Your task to perform on an android device: Open calendar and show me the second week of next month Image 0: 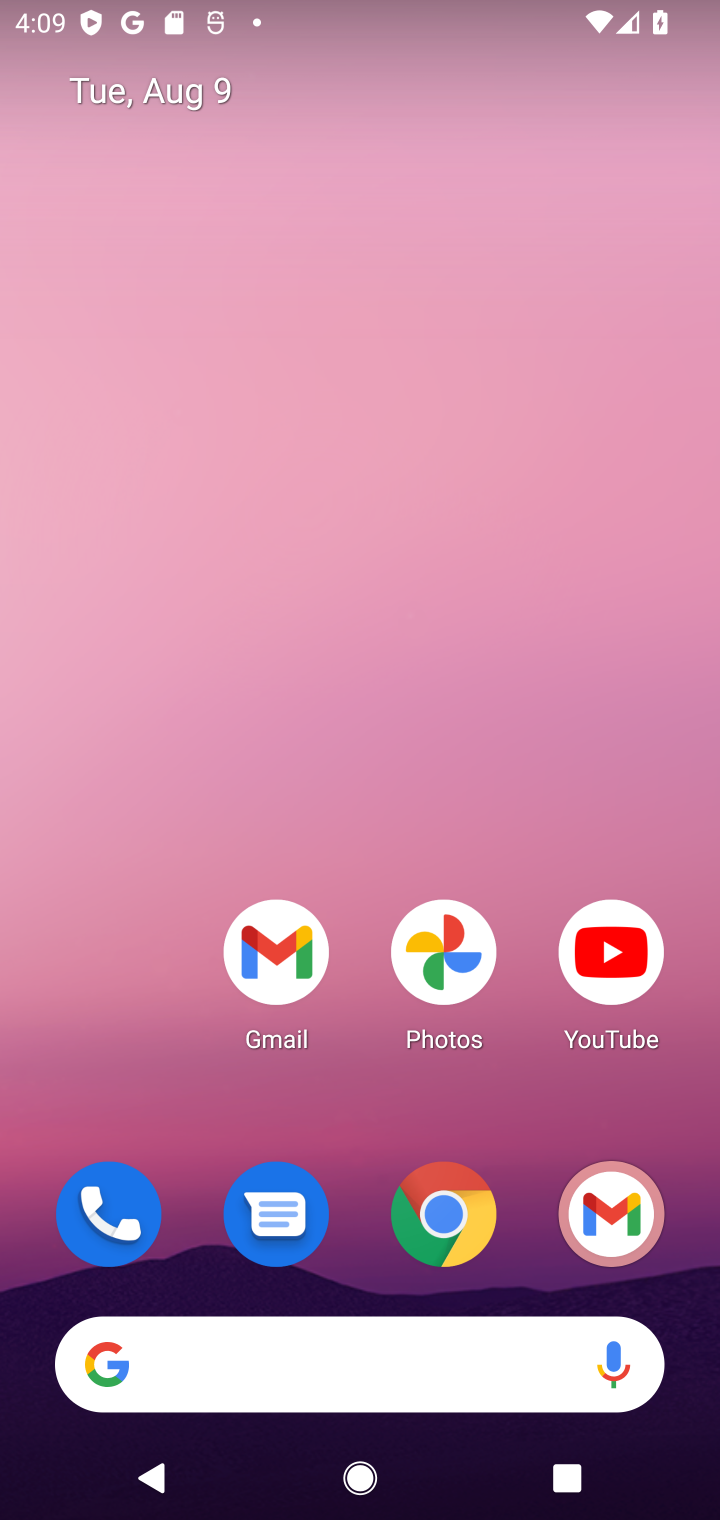
Step 0: press home button
Your task to perform on an android device: Open calendar and show me the second week of next month Image 1: 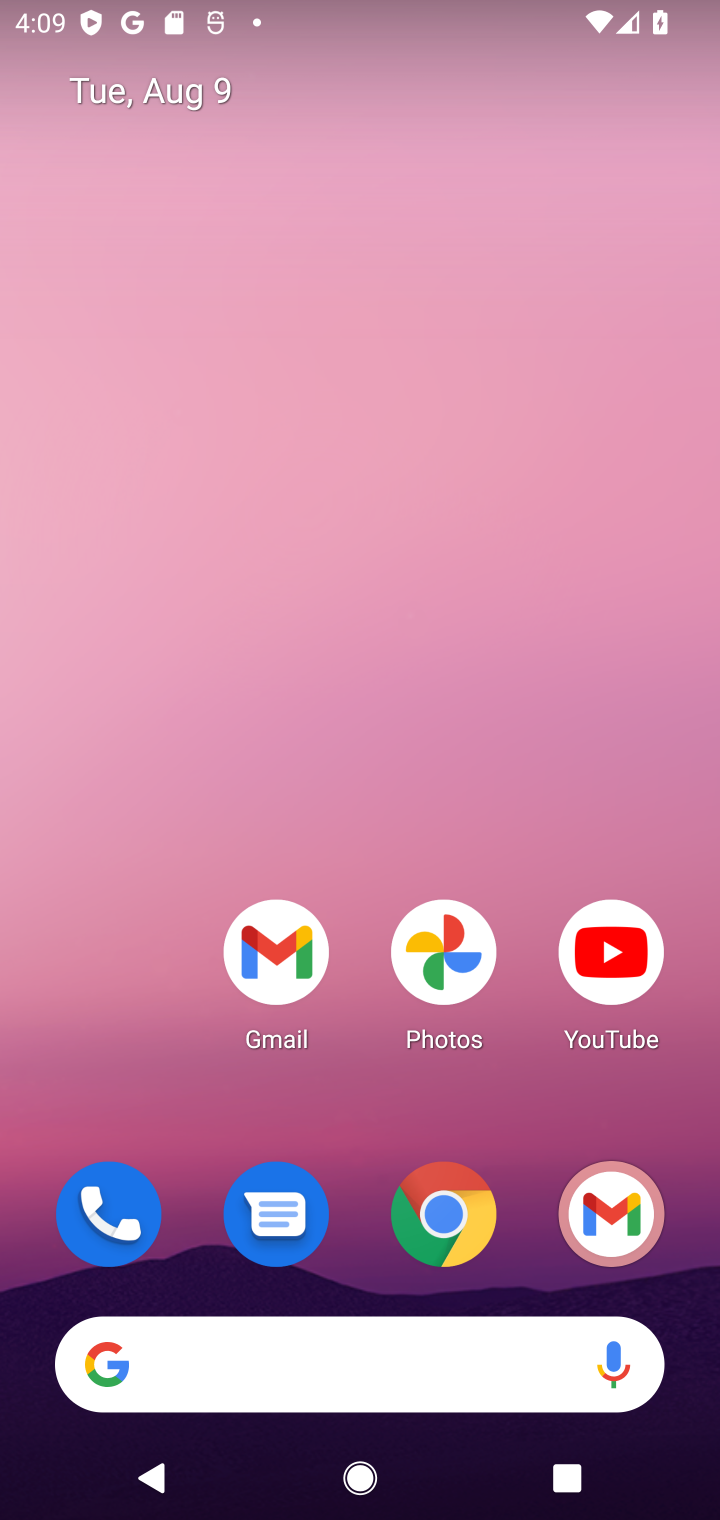
Step 1: drag from (398, 1423) to (304, 479)
Your task to perform on an android device: Open calendar and show me the second week of next month Image 2: 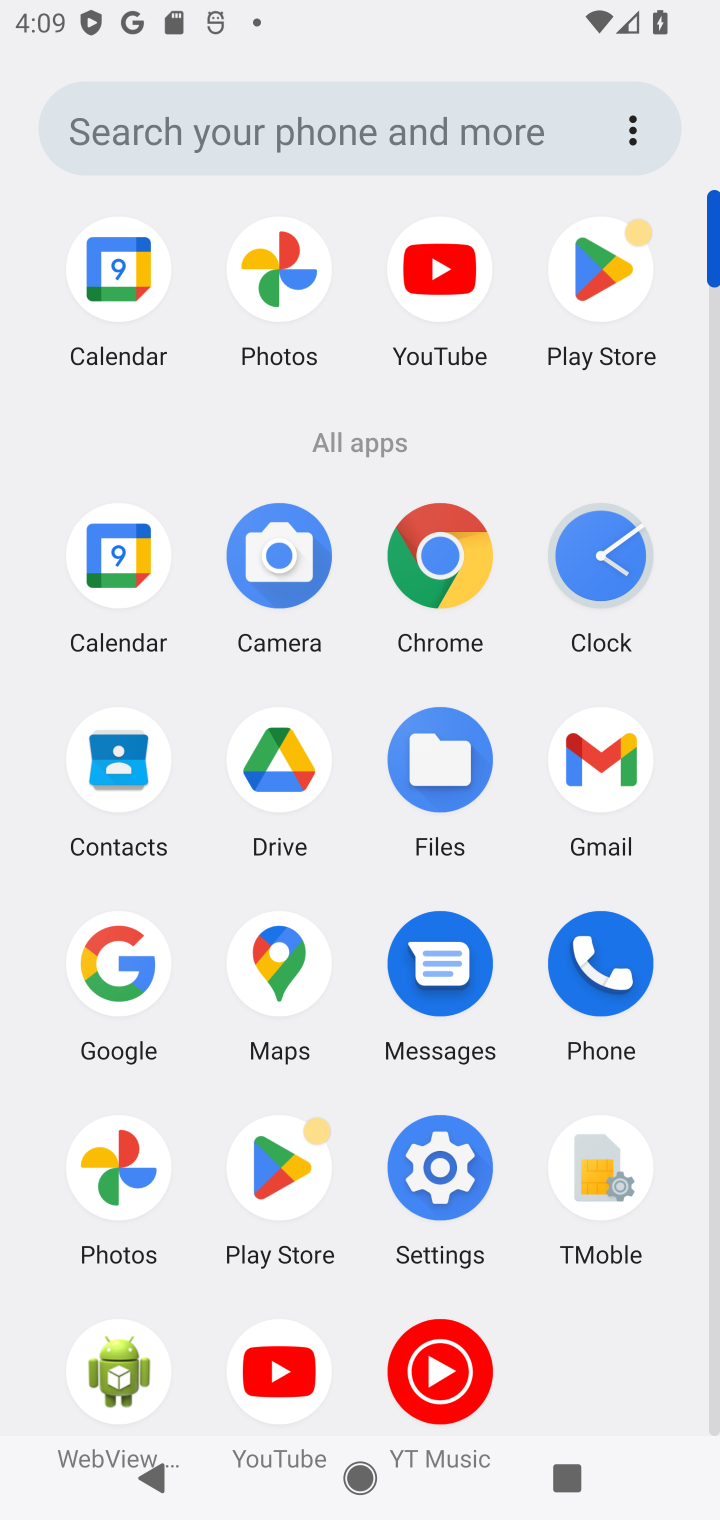
Step 2: click (111, 555)
Your task to perform on an android device: Open calendar and show me the second week of next month Image 3: 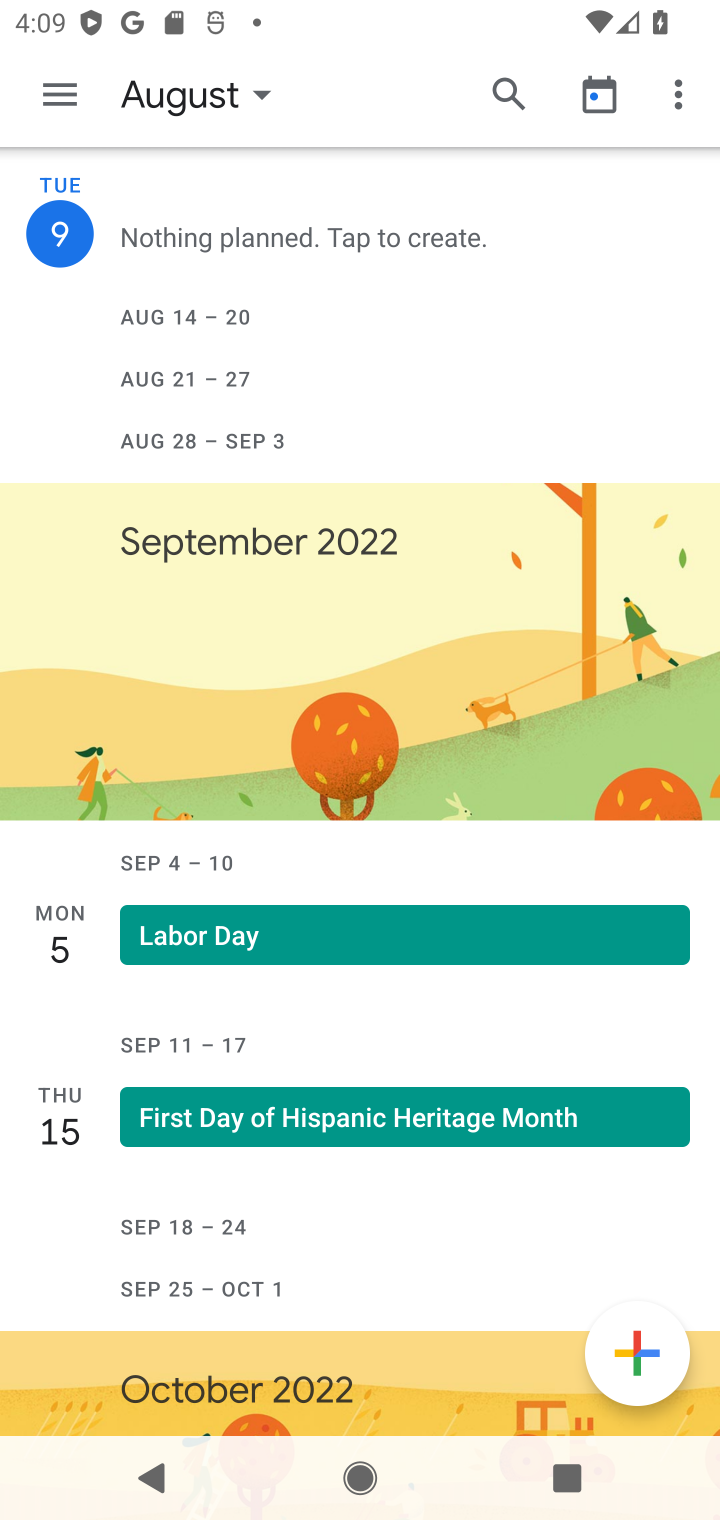
Step 3: click (63, 87)
Your task to perform on an android device: Open calendar and show me the second week of next month Image 4: 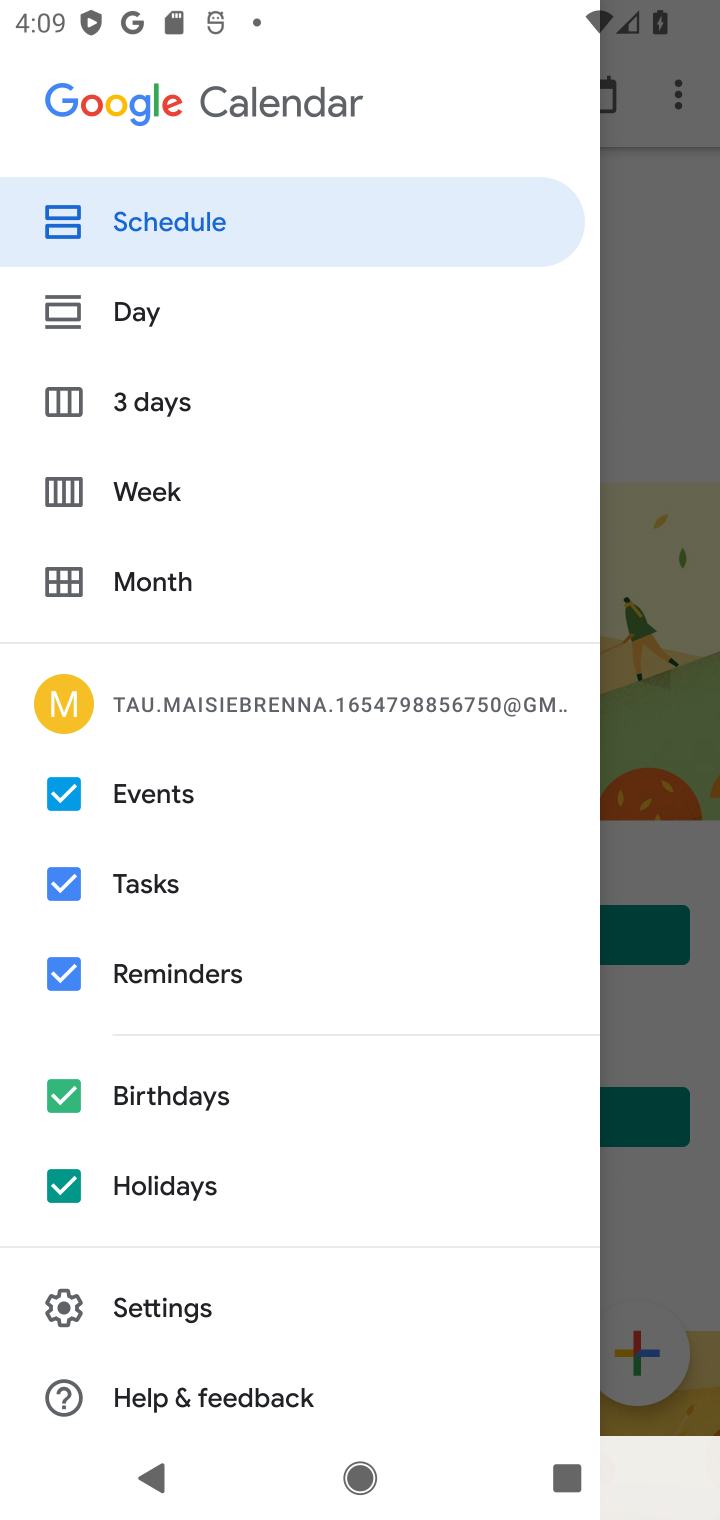
Step 4: click (187, 592)
Your task to perform on an android device: Open calendar and show me the second week of next month Image 5: 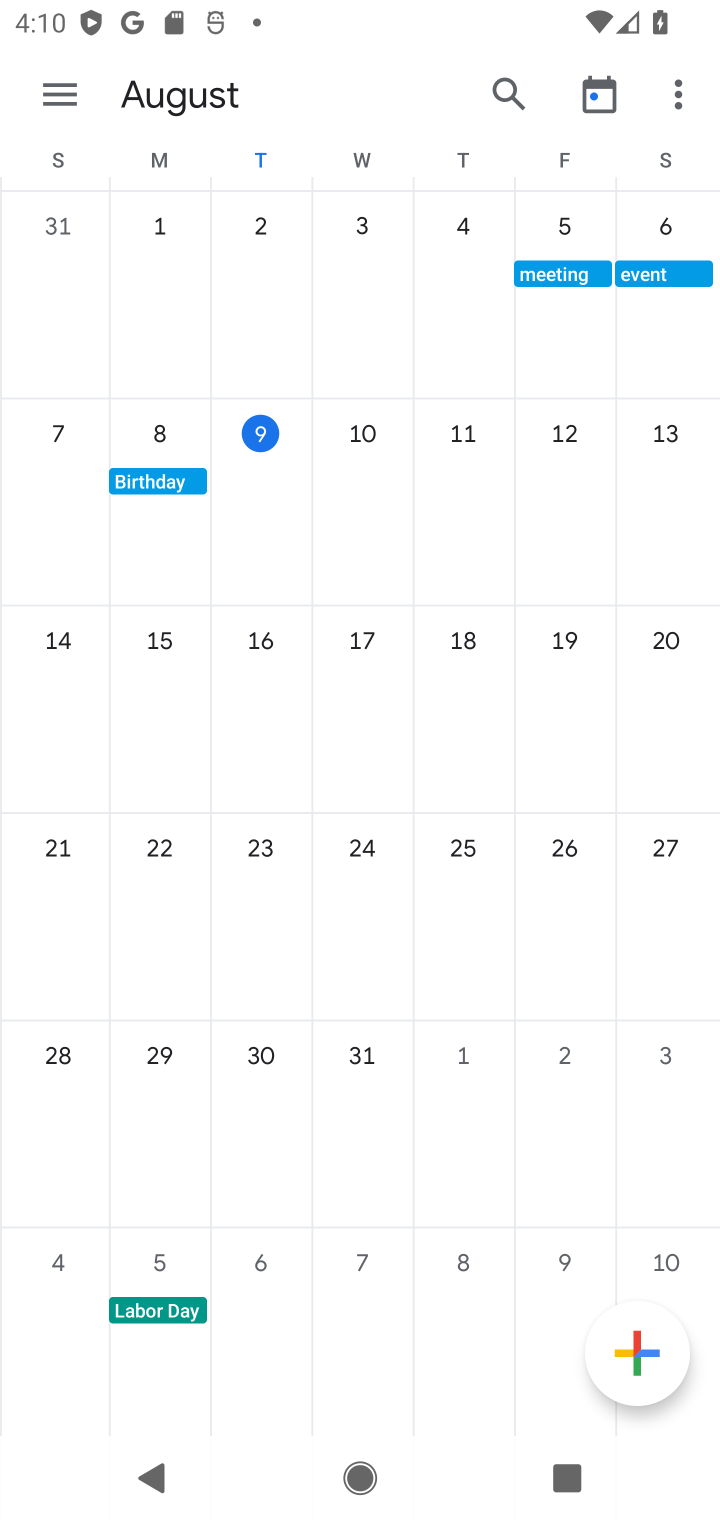
Step 5: drag from (693, 895) to (4, 849)
Your task to perform on an android device: Open calendar and show me the second week of next month Image 6: 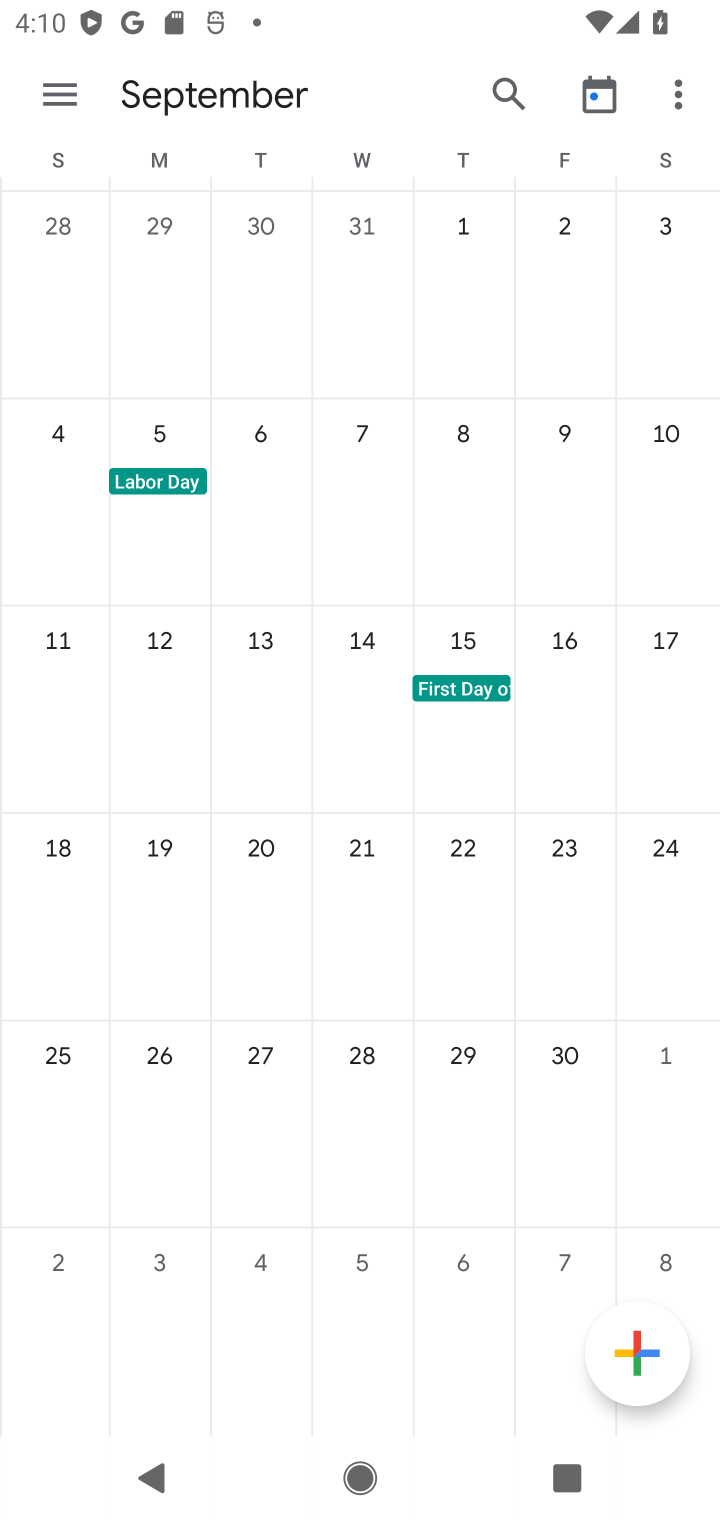
Step 6: click (152, 643)
Your task to perform on an android device: Open calendar and show me the second week of next month Image 7: 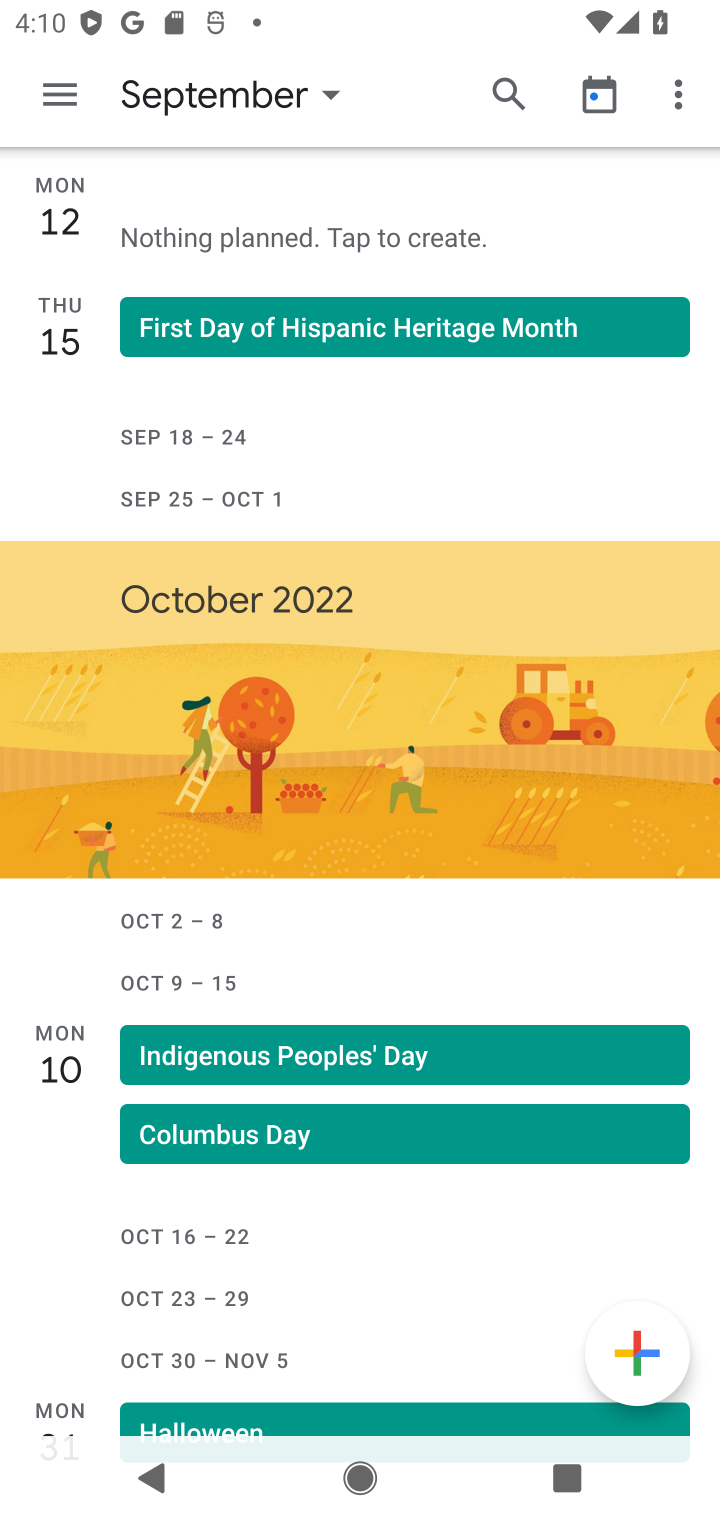
Step 7: task complete